Your task to perform on an android device: change text size in settings app Image 0: 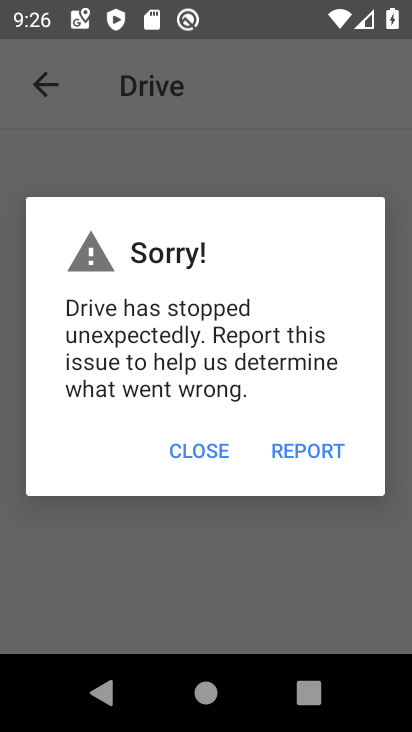
Step 0: press home button
Your task to perform on an android device: change text size in settings app Image 1: 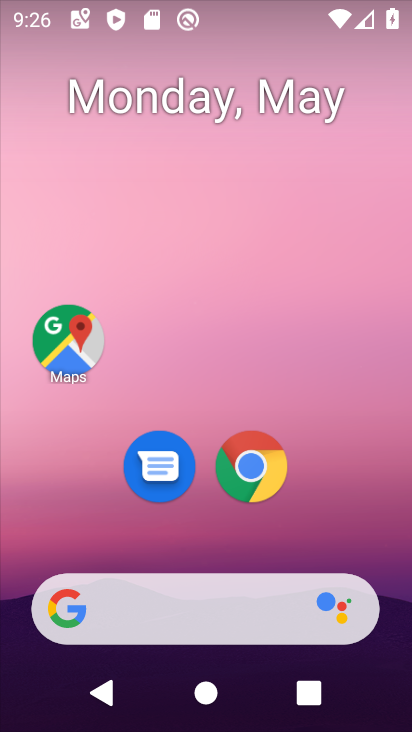
Step 1: drag from (238, 643) to (216, 33)
Your task to perform on an android device: change text size in settings app Image 2: 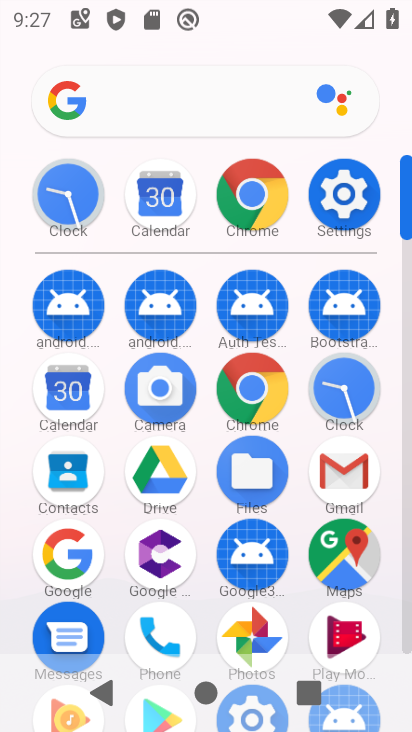
Step 2: click (334, 194)
Your task to perform on an android device: change text size in settings app Image 3: 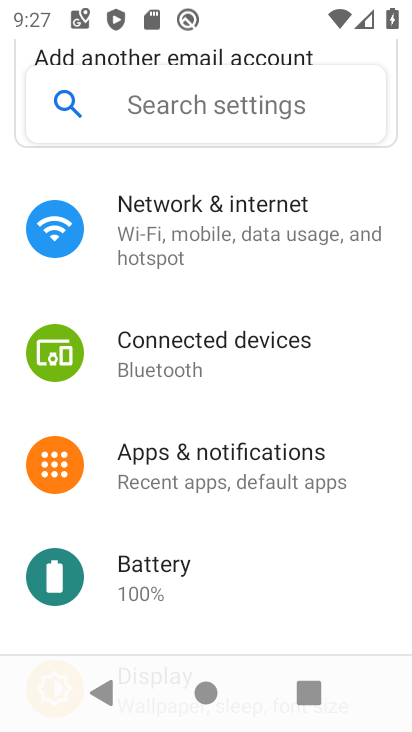
Step 3: click (137, 105)
Your task to perform on an android device: change text size in settings app Image 4: 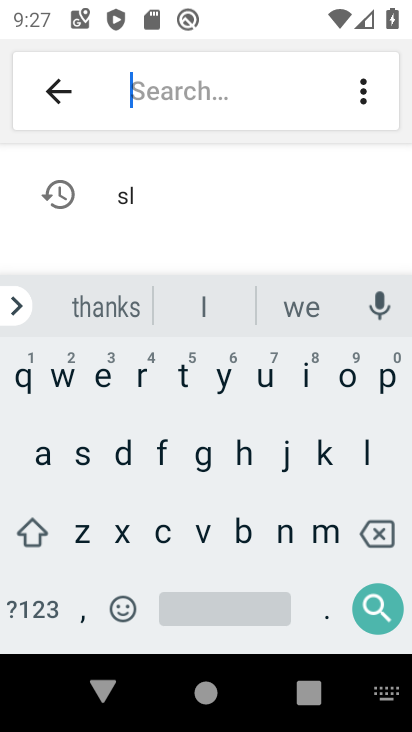
Step 4: click (80, 452)
Your task to perform on an android device: change text size in settings app Image 5: 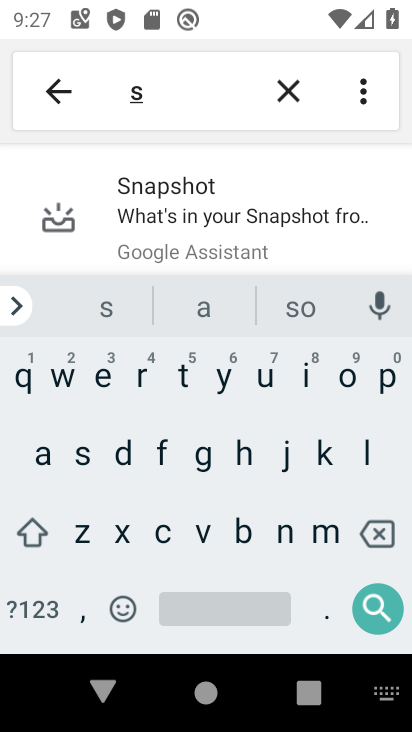
Step 5: click (311, 377)
Your task to perform on an android device: change text size in settings app Image 6: 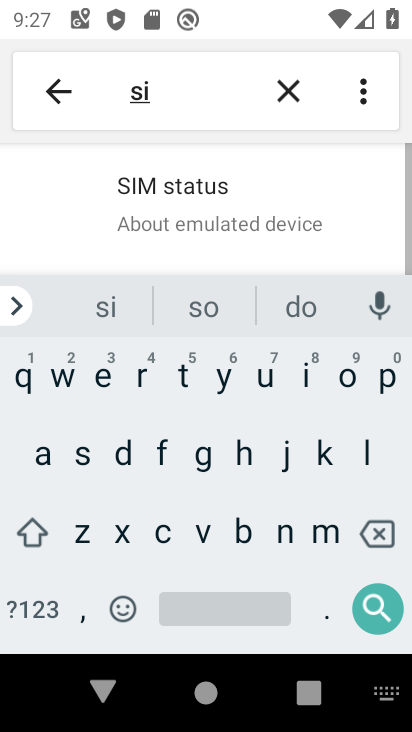
Step 6: click (82, 524)
Your task to perform on an android device: change text size in settings app Image 7: 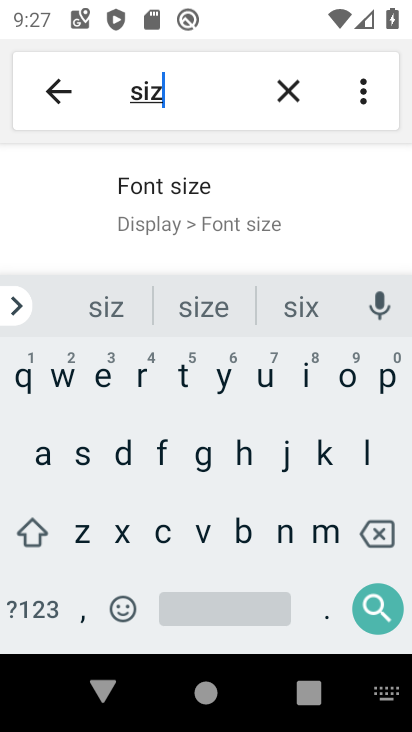
Step 7: click (182, 195)
Your task to perform on an android device: change text size in settings app Image 8: 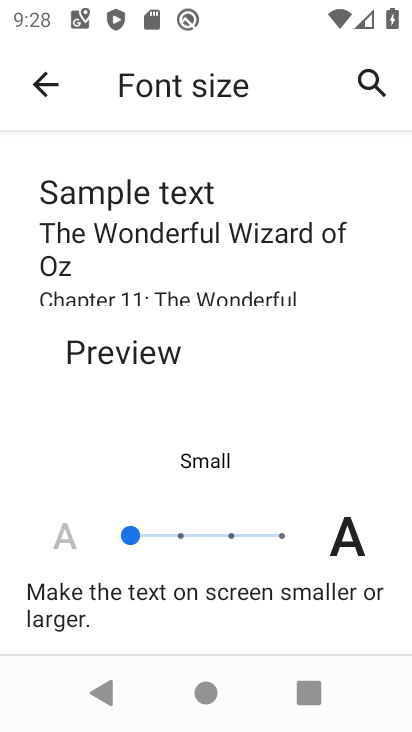
Step 8: click (176, 533)
Your task to perform on an android device: change text size in settings app Image 9: 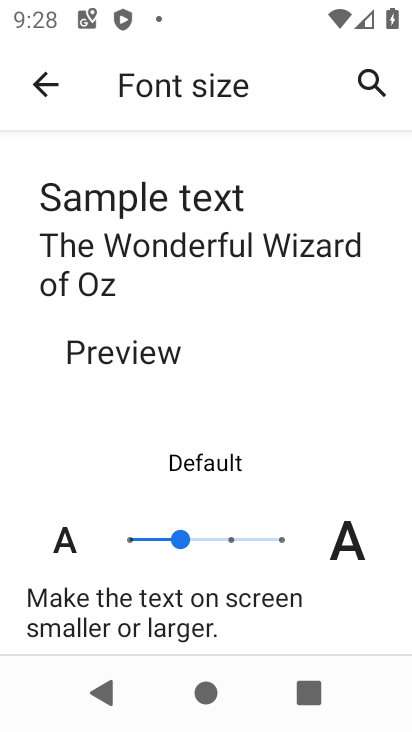
Step 9: task complete